Your task to perform on an android device: move an email to a new category in the gmail app Image 0: 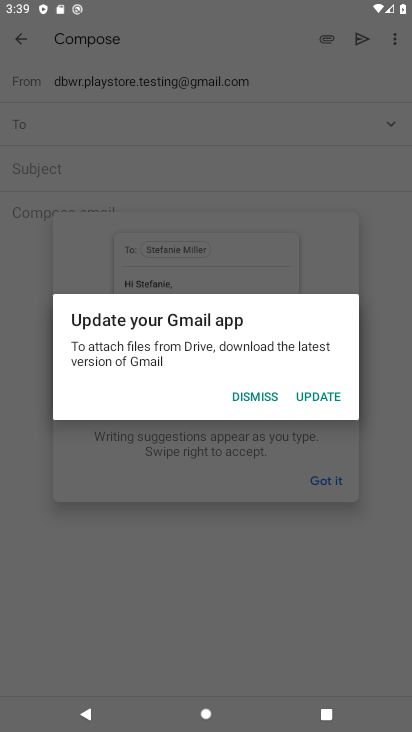
Step 0: press home button
Your task to perform on an android device: move an email to a new category in the gmail app Image 1: 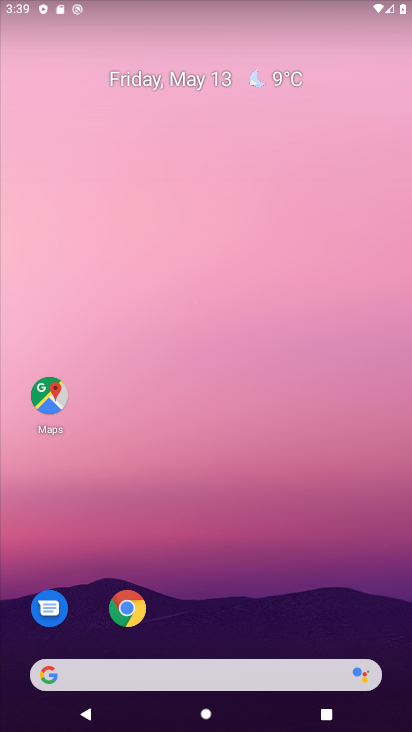
Step 1: drag from (207, 646) to (219, 273)
Your task to perform on an android device: move an email to a new category in the gmail app Image 2: 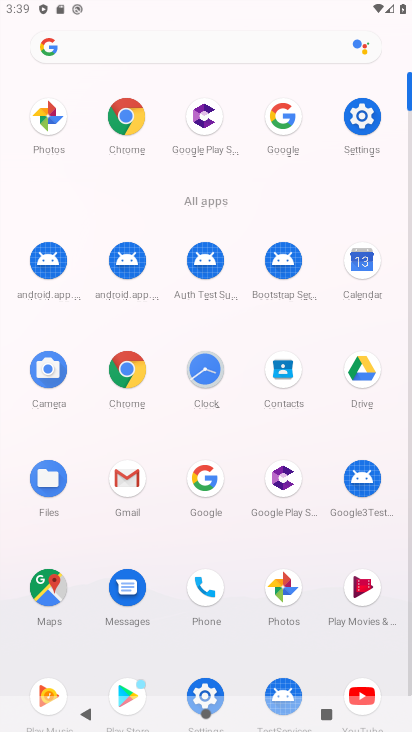
Step 2: click (123, 477)
Your task to perform on an android device: move an email to a new category in the gmail app Image 3: 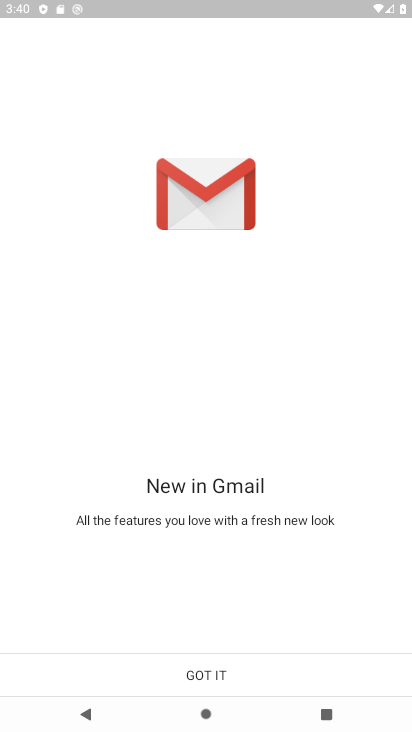
Step 3: drag from (158, 144) to (208, 531)
Your task to perform on an android device: move an email to a new category in the gmail app Image 4: 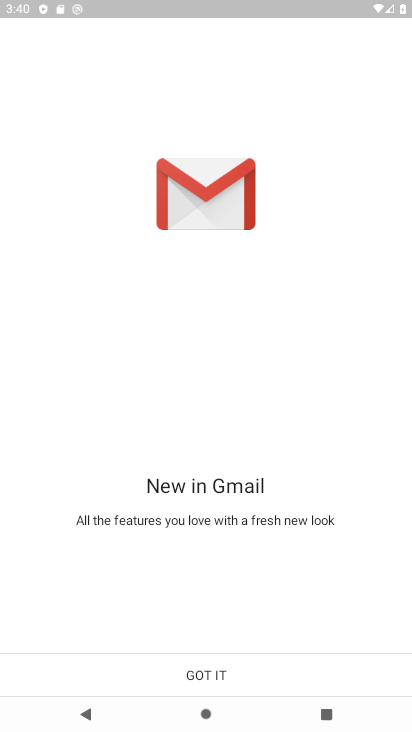
Step 4: drag from (118, 94) to (170, 458)
Your task to perform on an android device: move an email to a new category in the gmail app Image 5: 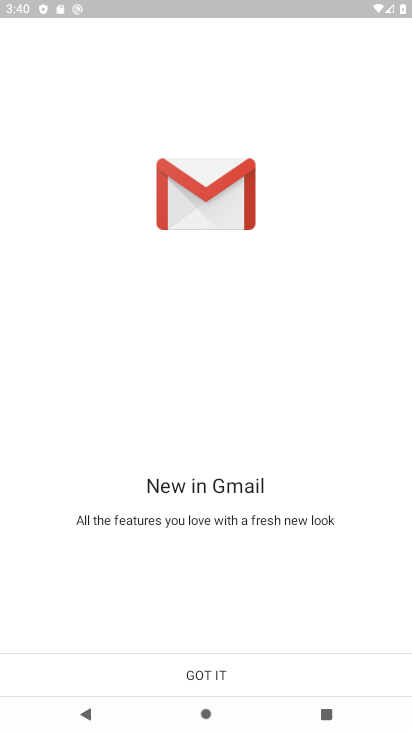
Step 5: click (154, 523)
Your task to perform on an android device: move an email to a new category in the gmail app Image 6: 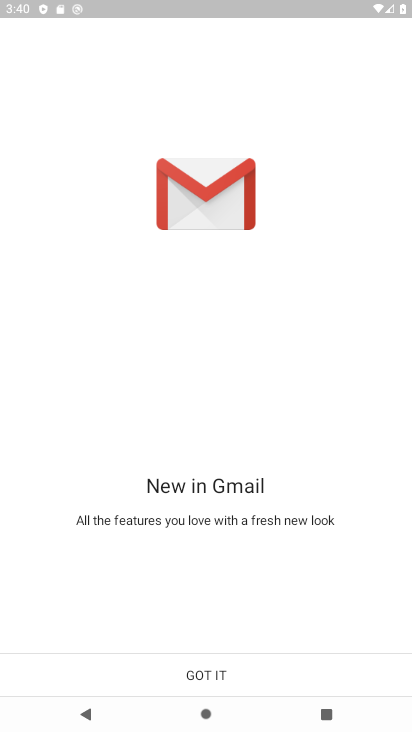
Step 6: click (177, 665)
Your task to perform on an android device: move an email to a new category in the gmail app Image 7: 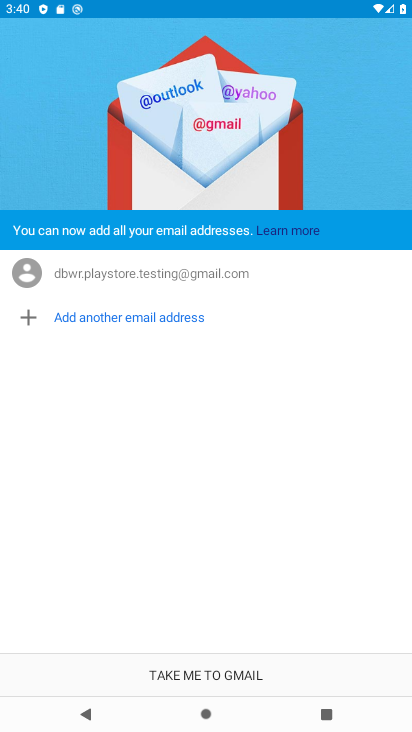
Step 7: click (196, 677)
Your task to perform on an android device: move an email to a new category in the gmail app Image 8: 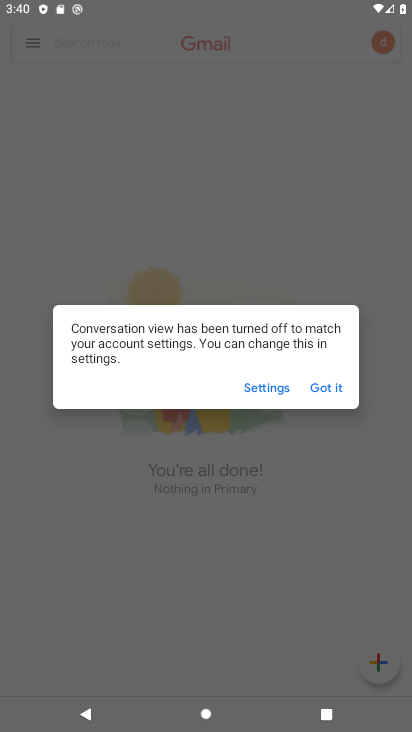
Step 8: click (330, 396)
Your task to perform on an android device: move an email to a new category in the gmail app Image 9: 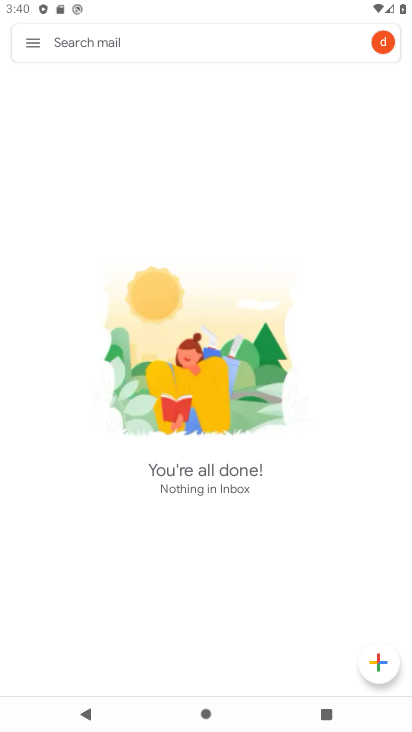
Step 9: task complete